Your task to perform on an android device: toggle translation in the chrome app Image 0: 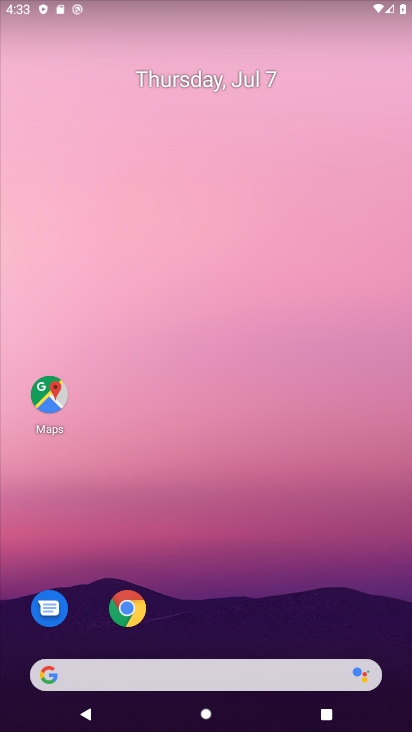
Step 0: click (124, 600)
Your task to perform on an android device: toggle translation in the chrome app Image 1: 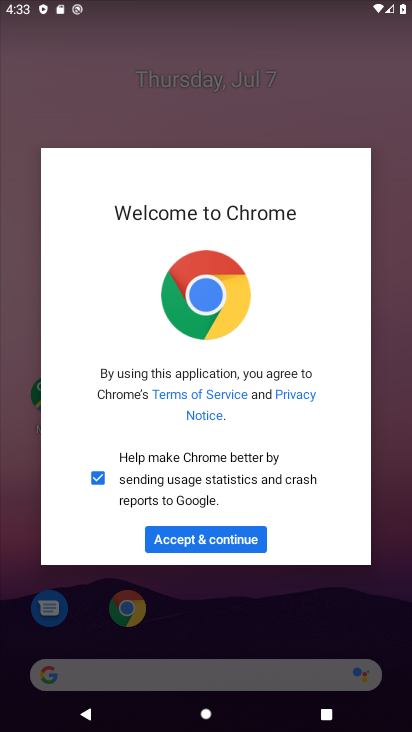
Step 1: click (204, 539)
Your task to perform on an android device: toggle translation in the chrome app Image 2: 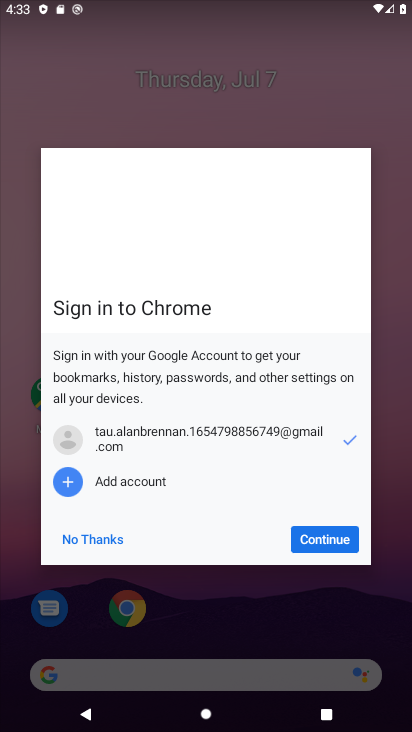
Step 2: click (326, 546)
Your task to perform on an android device: toggle translation in the chrome app Image 3: 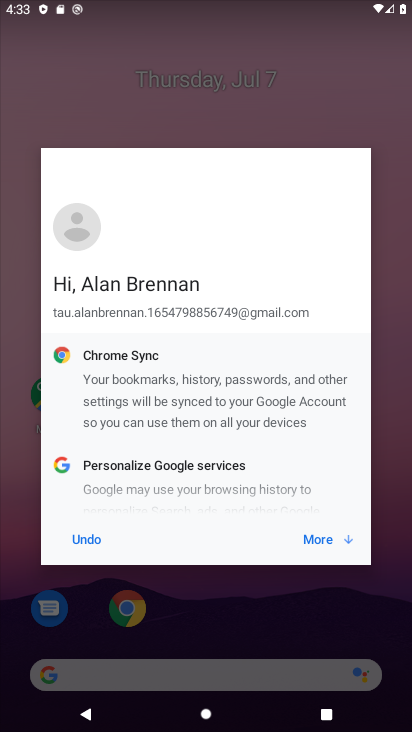
Step 3: click (326, 546)
Your task to perform on an android device: toggle translation in the chrome app Image 4: 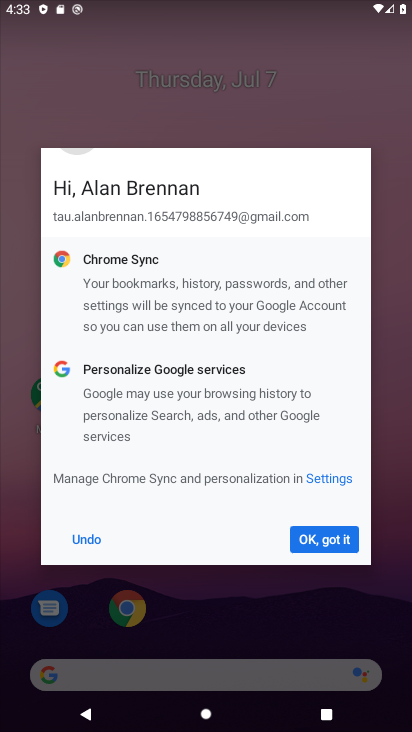
Step 4: click (326, 546)
Your task to perform on an android device: toggle translation in the chrome app Image 5: 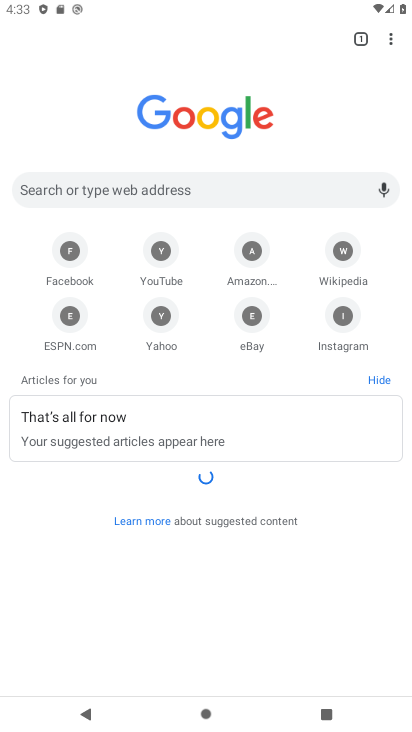
Step 5: click (391, 40)
Your task to perform on an android device: toggle translation in the chrome app Image 6: 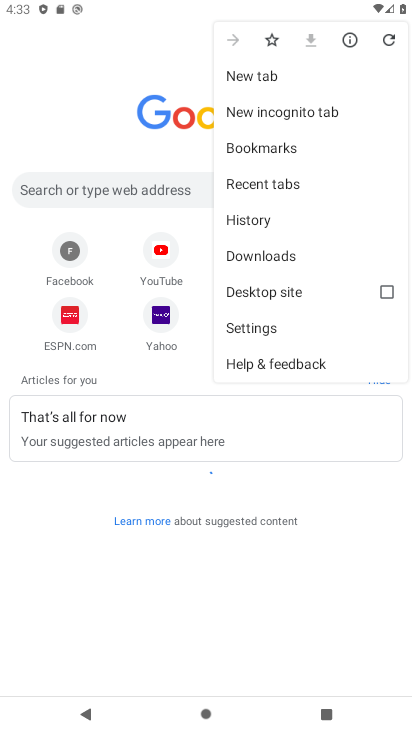
Step 6: click (289, 326)
Your task to perform on an android device: toggle translation in the chrome app Image 7: 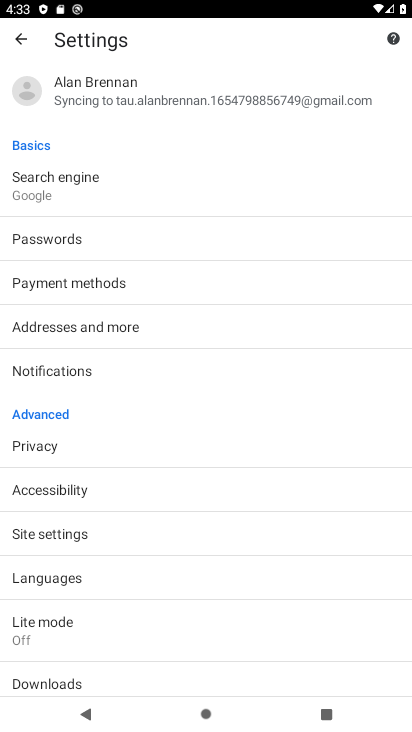
Step 7: click (89, 578)
Your task to perform on an android device: toggle translation in the chrome app Image 8: 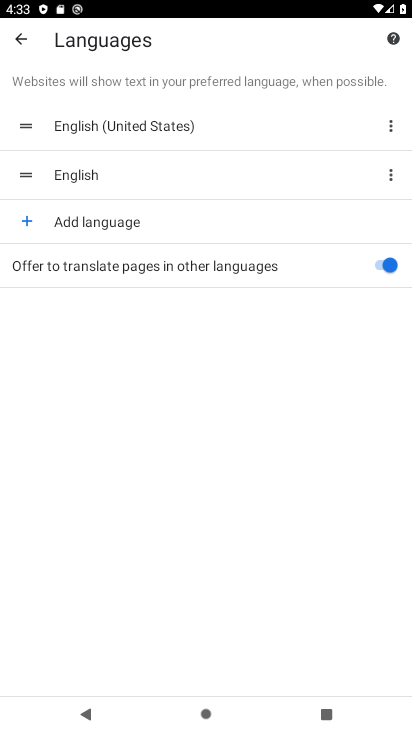
Step 8: click (377, 261)
Your task to perform on an android device: toggle translation in the chrome app Image 9: 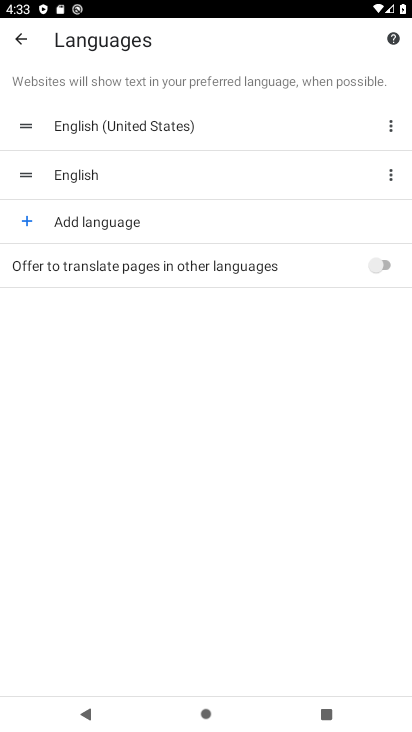
Step 9: task complete